Your task to perform on an android device: turn on bluetooth scan Image 0: 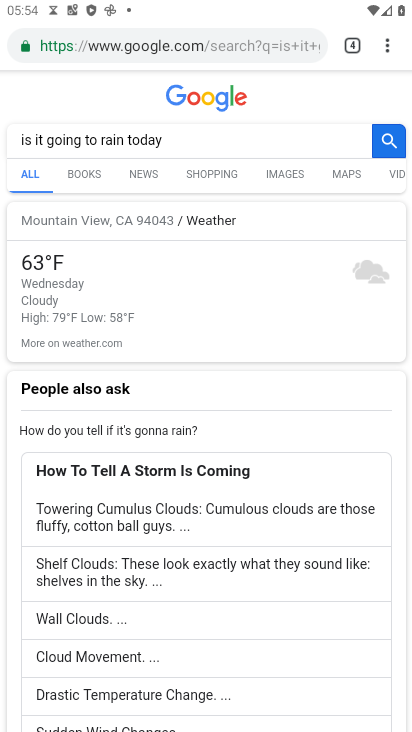
Step 0: press home button
Your task to perform on an android device: turn on bluetooth scan Image 1: 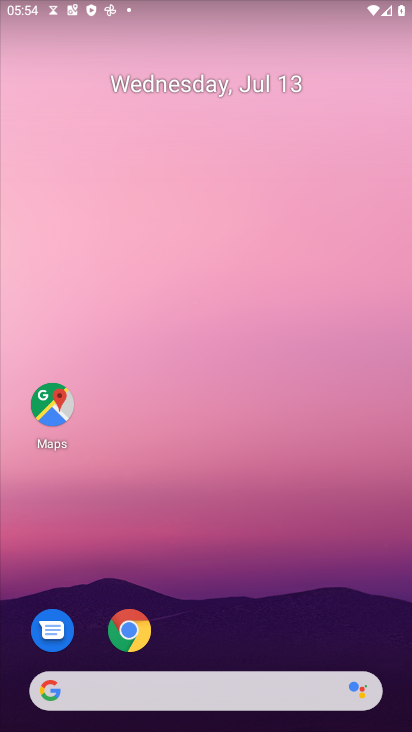
Step 1: drag from (214, 693) to (349, 13)
Your task to perform on an android device: turn on bluetooth scan Image 2: 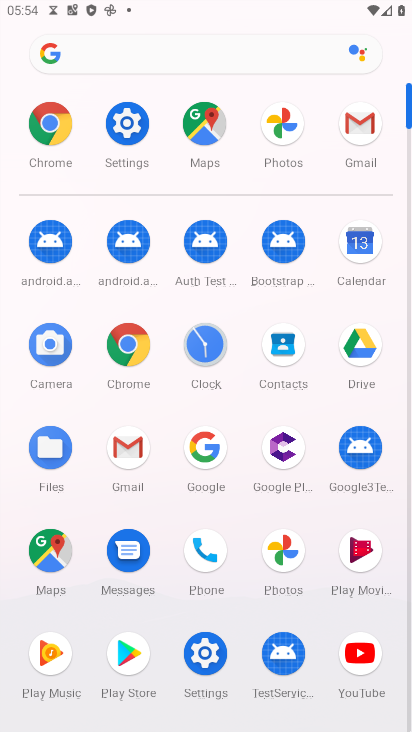
Step 2: click (141, 122)
Your task to perform on an android device: turn on bluetooth scan Image 3: 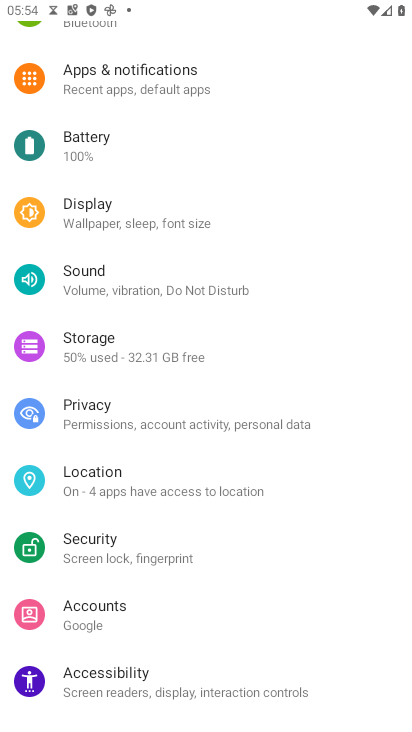
Step 3: click (122, 471)
Your task to perform on an android device: turn on bluetooth scan Image 4: 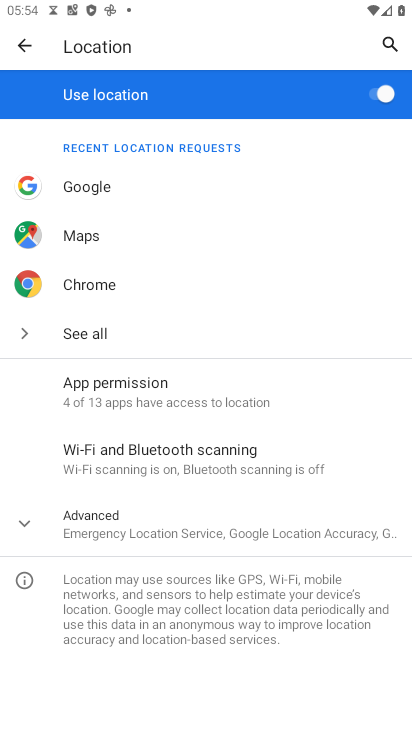
Step 4: click (114, 525)
Your task to perform on an android device: turn on bluetooth scan Image 5: 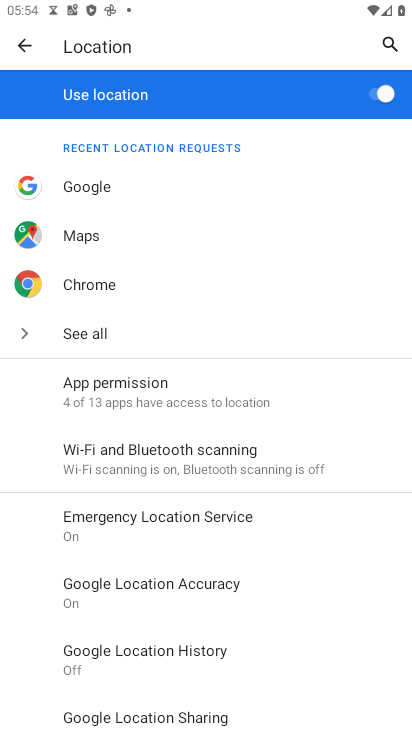
Step 5: click (235, 450)
Your task to perform on an android device: turn on bluetooth scan Image 6: 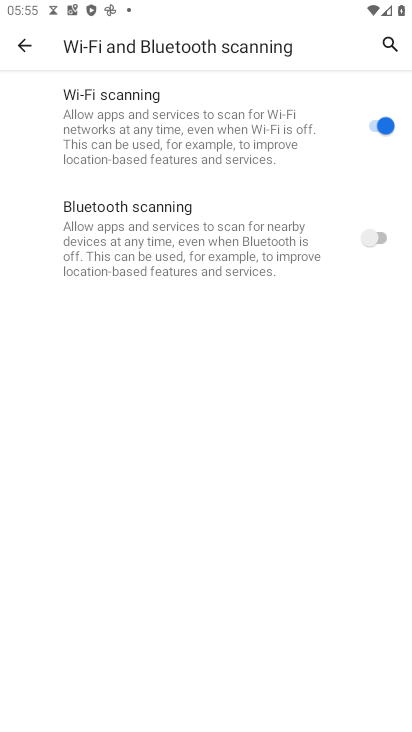
Step 6: click (381, 237)
Your task to perform on an android device: turn on bluetooth scan Image 7: 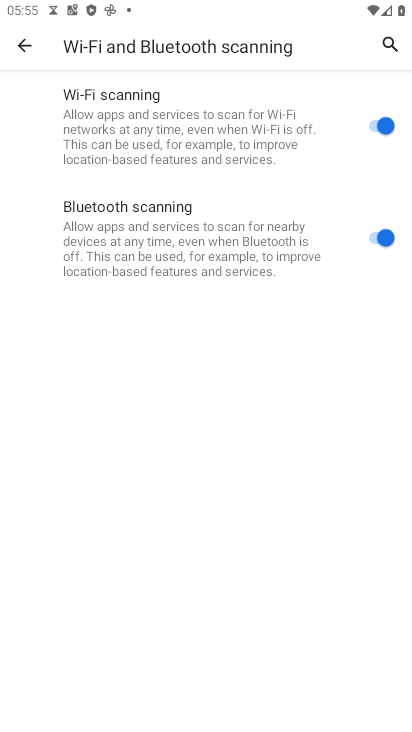
Step 7: task complete